Your task to perform on an android device: visit the assistant section in the google photos Image 0: 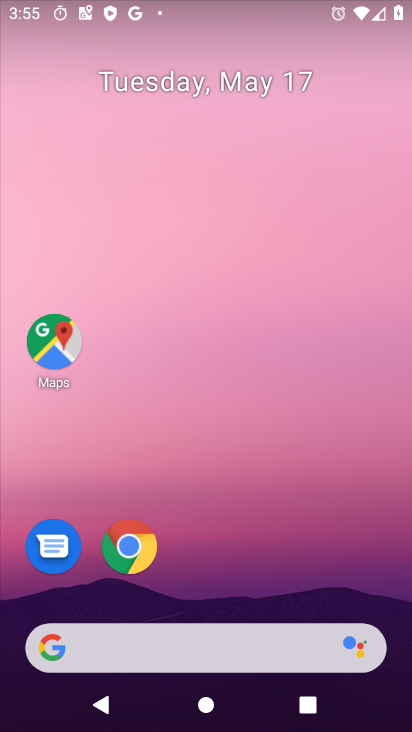
Step 0: drag from (394, 574) to (369, 330)
Your task to perform on an android device: visit the assistant section in the google photos Image 1: 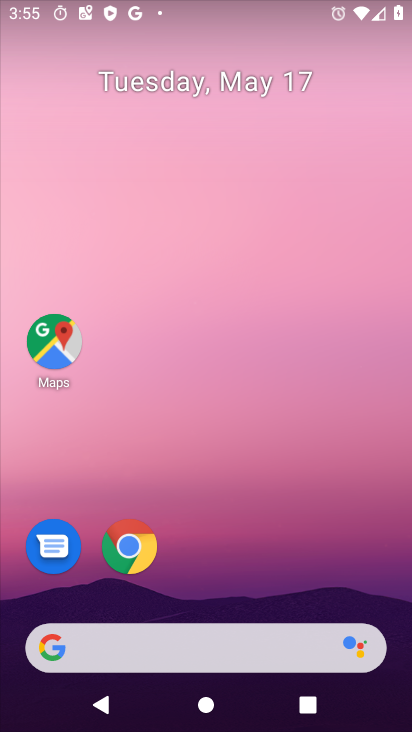
Step 1: drag from (397, 687) to (369, 341)
Your task to perform on an android device: visit the assistant section in the google photos Image 2: 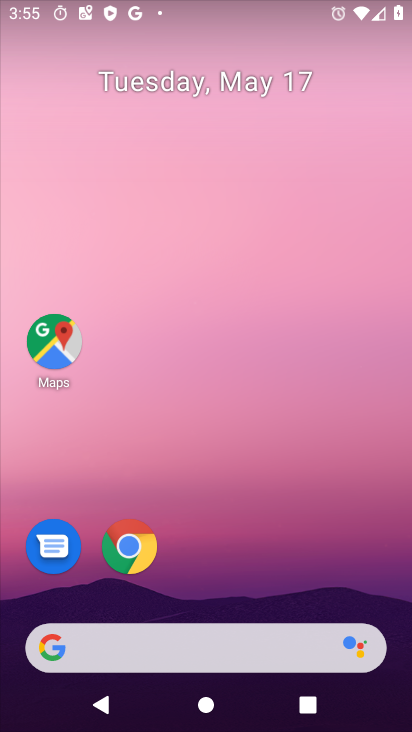
Step 2: drag from (403, 676) to (335, 268)
Your task to perform on an android device: visit the assistant section in the google photos Image 3: 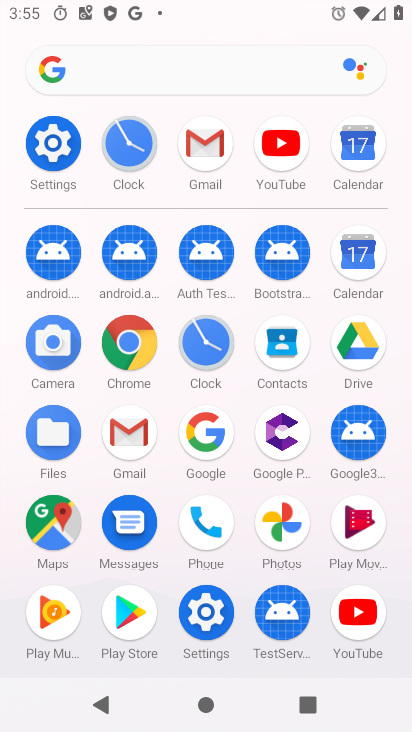
Step 3: click (277, 512)
Your task to perform on an android device: visit the assistant section in the google photos Image 4: 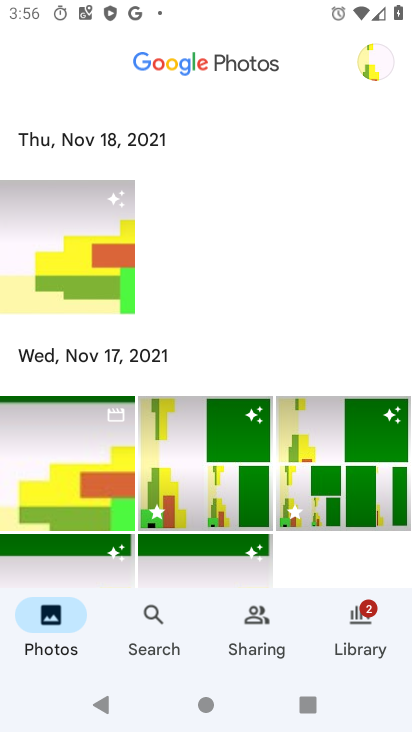
Step 4: task complete